Your task to perform on an android device: turn off airplane mode Image 0: 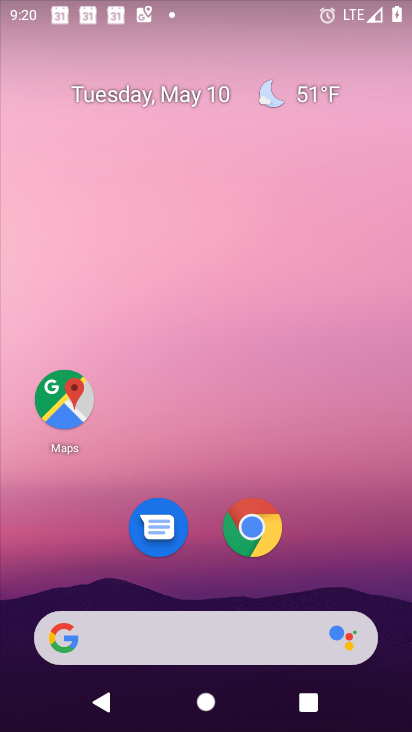
Step 0: drag from (231, 584) to (240, 5)
Your task to perform on an android device: turn off airplane mode Image 1: 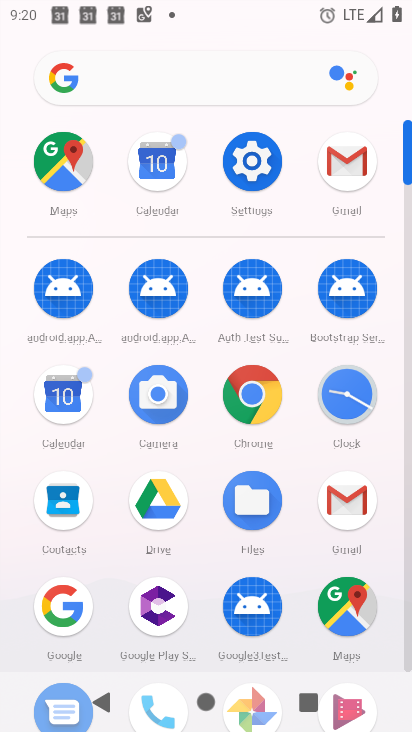
Step 1: click (255, 160)
Your task to perform on an android device: turn off airplane mode Image 2: 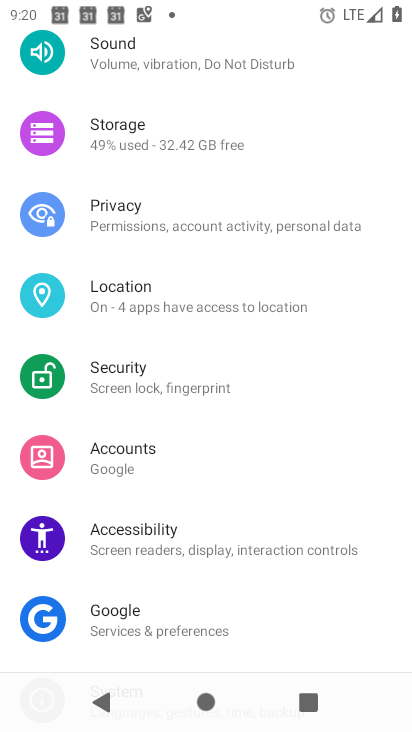
Step 2: drag from (255, 160) to (285, 571)
Your task to perform on an android device: turn off airplane mode Image 3: 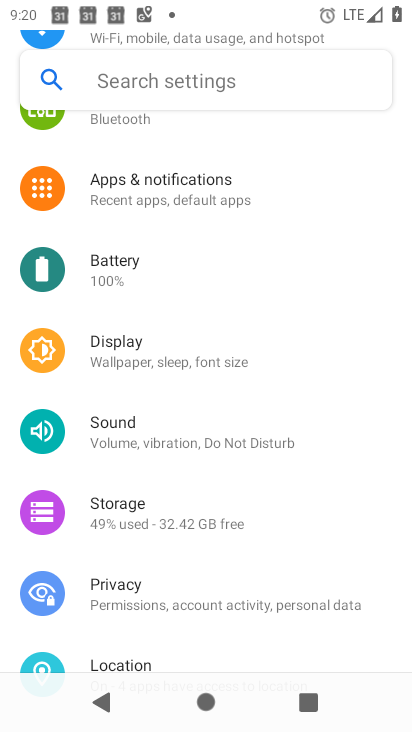
Step 3: drag from (239, 155) to (274, 506)
Your task to perform on an android device: turn off airplane mode Image 4: 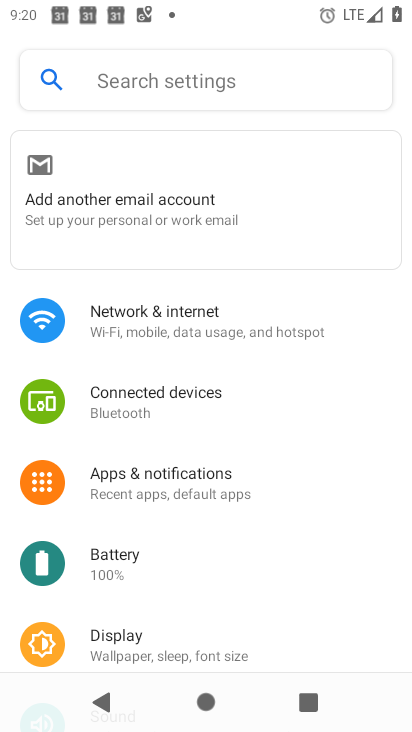
Step 4: click (223, 308)
Your task to perform on an android device: turn off airplane mode Image 5: 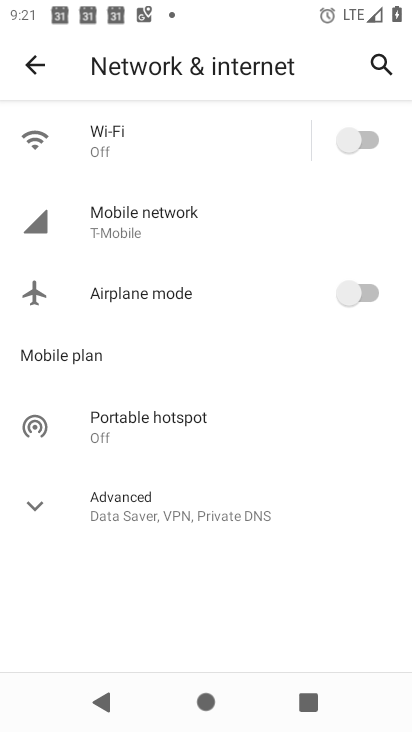
Step 5: task complete